Your task to perform on an android device: Open Reddit.com Image 0: 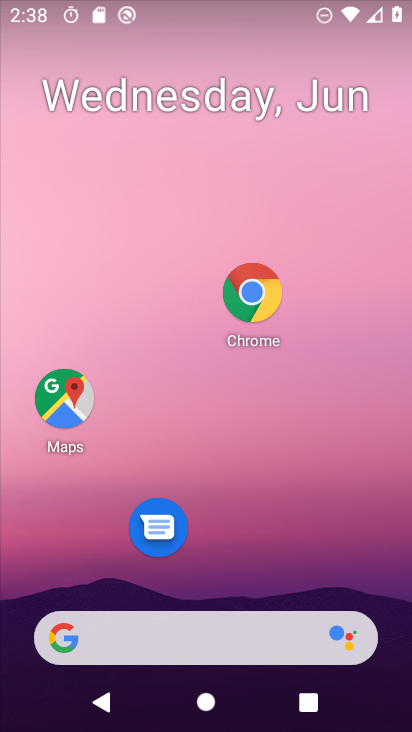
Step 0: drag from (226, 549) to (299, 264)
Your task to perform on an android device: Open Reddit.com Image 1: 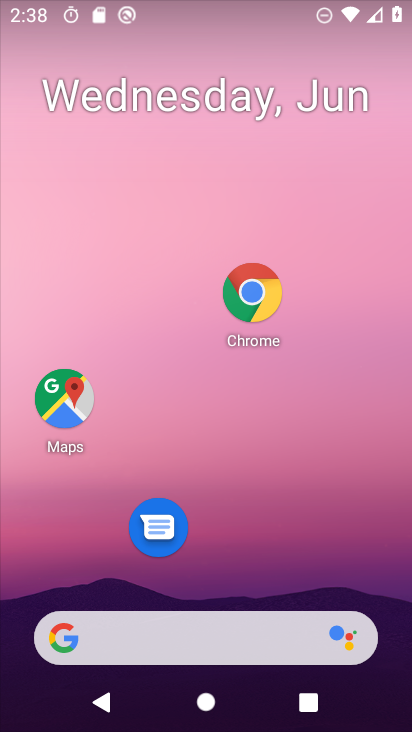
Step 1: drag from (201, 595) to (218, 263)
Your task to perform on an android device: Open Reddit.com Image 2: 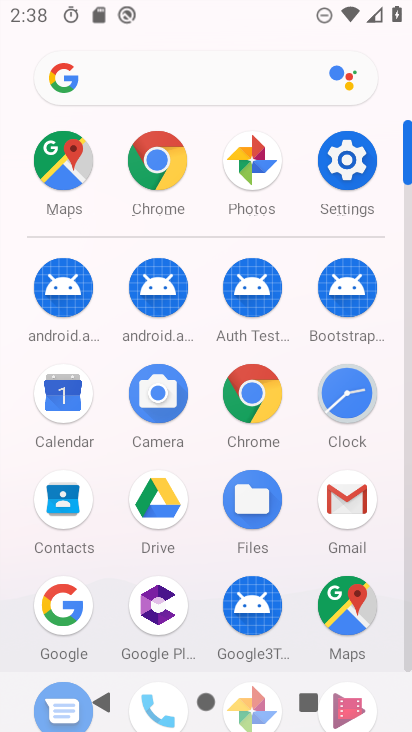
Step 2: click (252, 406)
Your task to perform on an android device: Open Reddit.com Image 3: 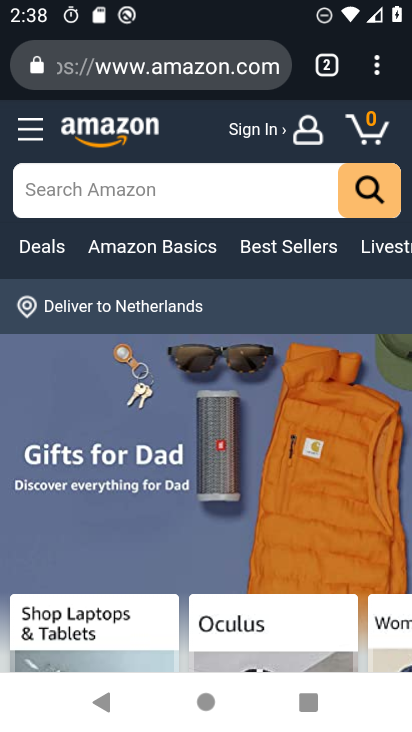
Step 3: click (193, 77)
Your task to perform on an android device: Open Reddit.com Image 4: 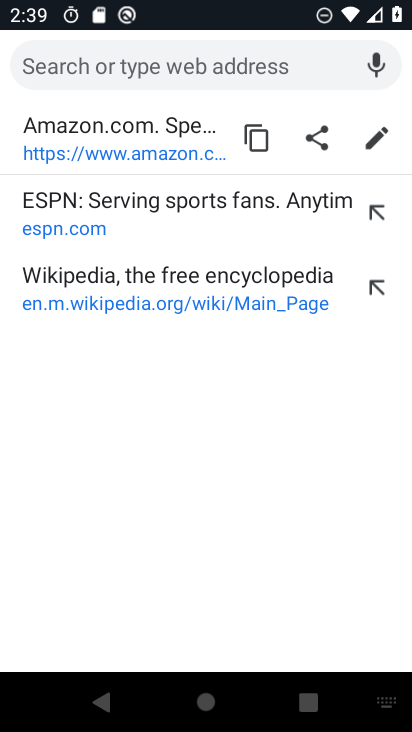
Step 4: type "reddit"
Your task to perform on an android device: Open Reddit.com Image 5: 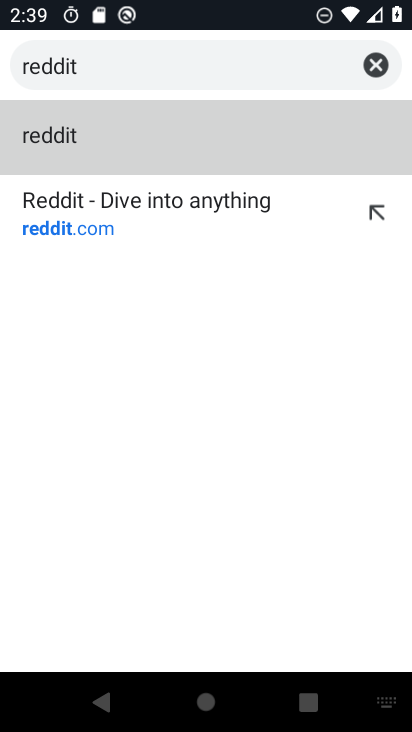
Step 5: click (98, 227)
Your task to perform on an android device: Open Reddit.com Image 6: 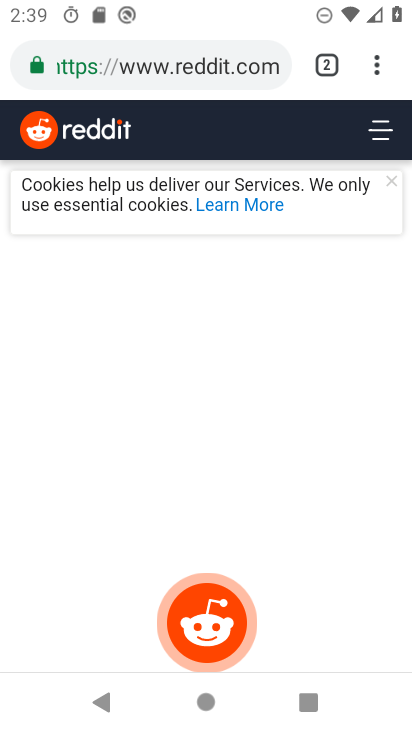
Step 6: task complete